Your task to perform on an android device: create a new album in the google photos Image 0: 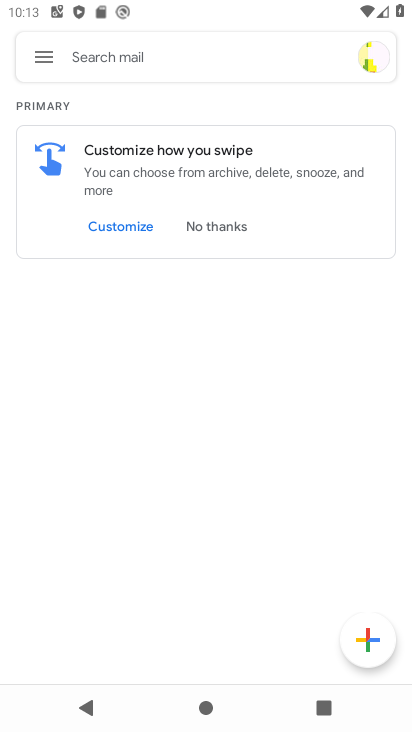
Step 0: press home button
Your task to perform on an android device: create a new album in the google photos Image 1: 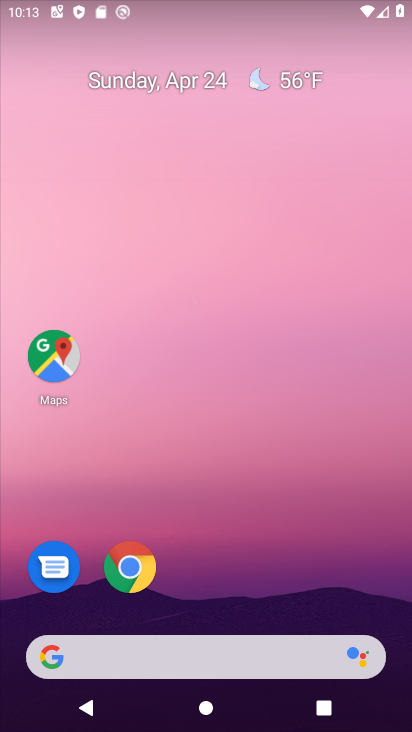
Step 1: drag from (173, 657) to (339, 193)
Your task to perform on an android device: create a new album in the google photos Image 2: 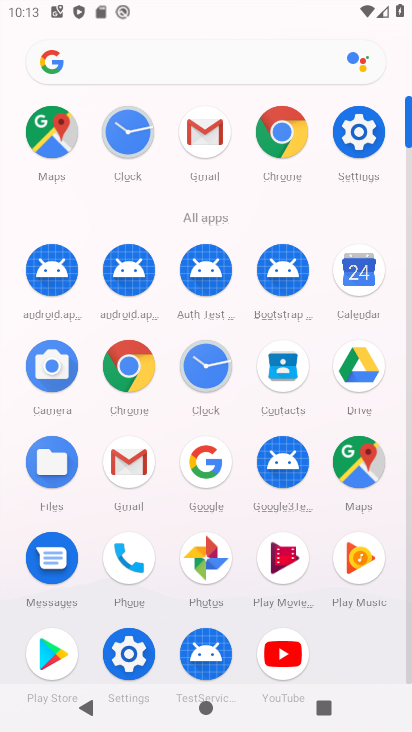
Step 2: click (213, 560)
Your task to perform on an android device: create a new album in the google photos Image 3: 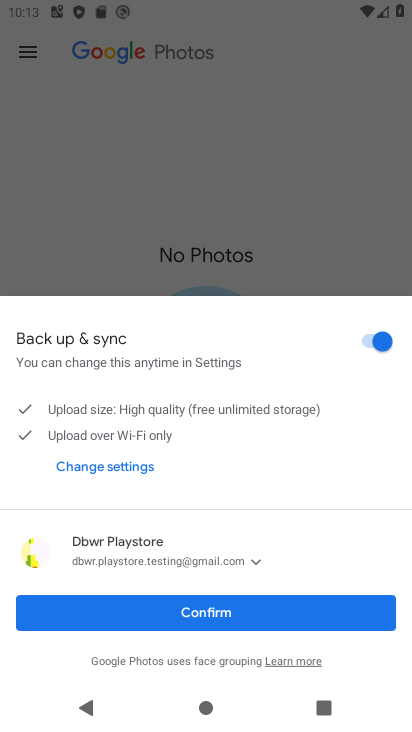
Step 3: click (212, 615)
Your task to perform on an android device: create a new album in the google photos Image 4: 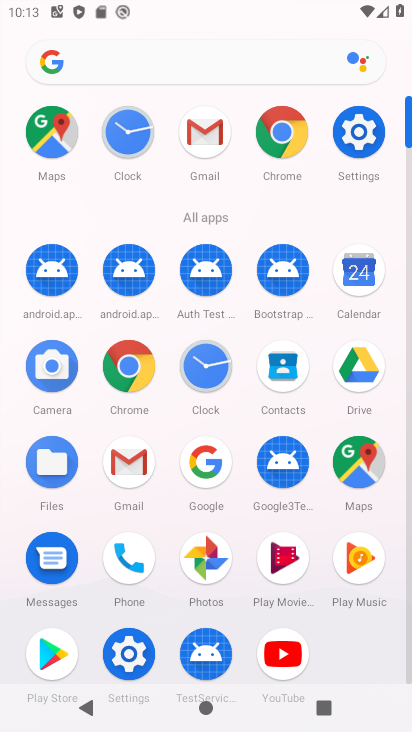
Step 4: click (208, 550)
Your task to perform on an android device: create a new album in the google photos Image 5: 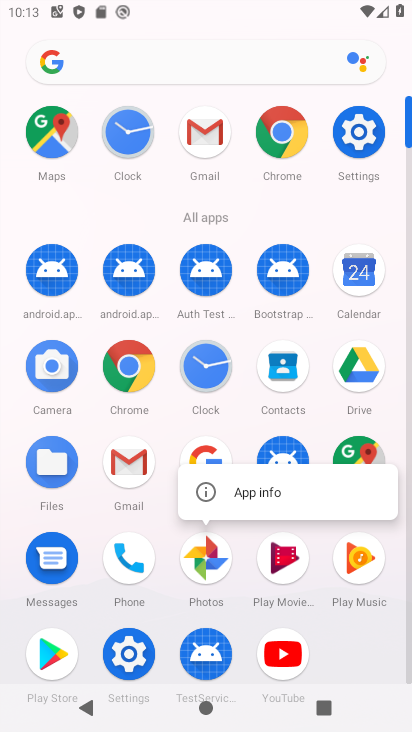
Step 5: click (200, 561)
Your task to perform on an android device: create a new album in the google photos Image 6: 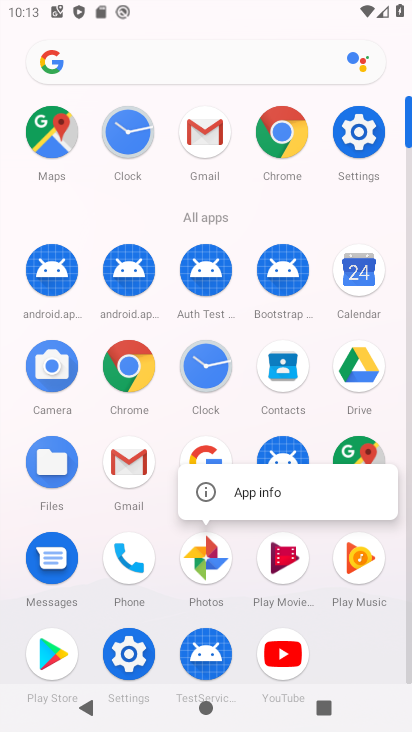
Step 6: click (207, 564)
Your task to perform on an android device: create a new album in the google photos Image 7: 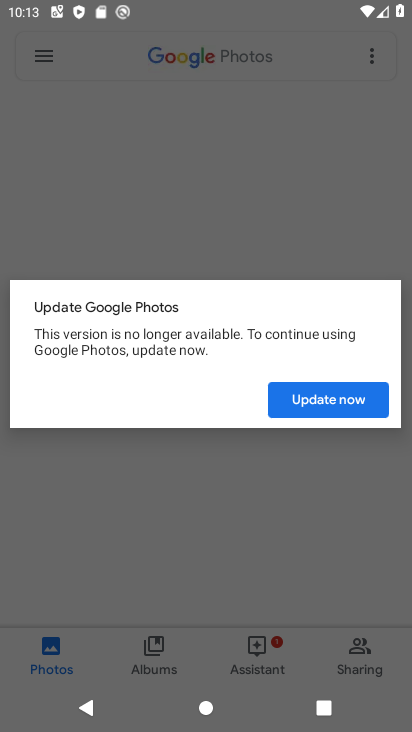
Step 7: click (336, 401)
Your task to perform on an android device: create a new album in the google photos Image 8: 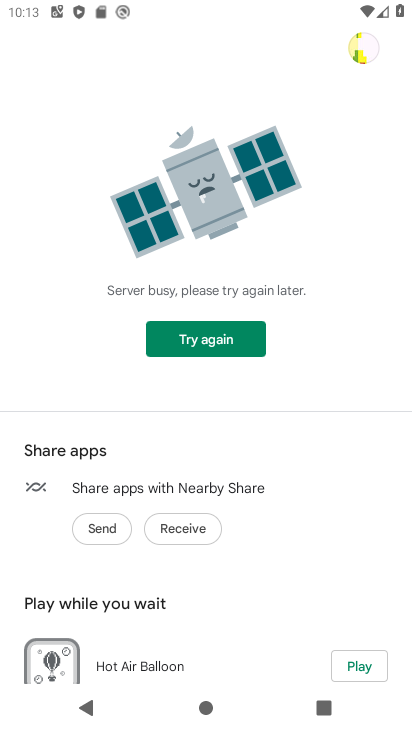
Step 8: task complete